Your task to perform on an android device: Open settings Image 0: 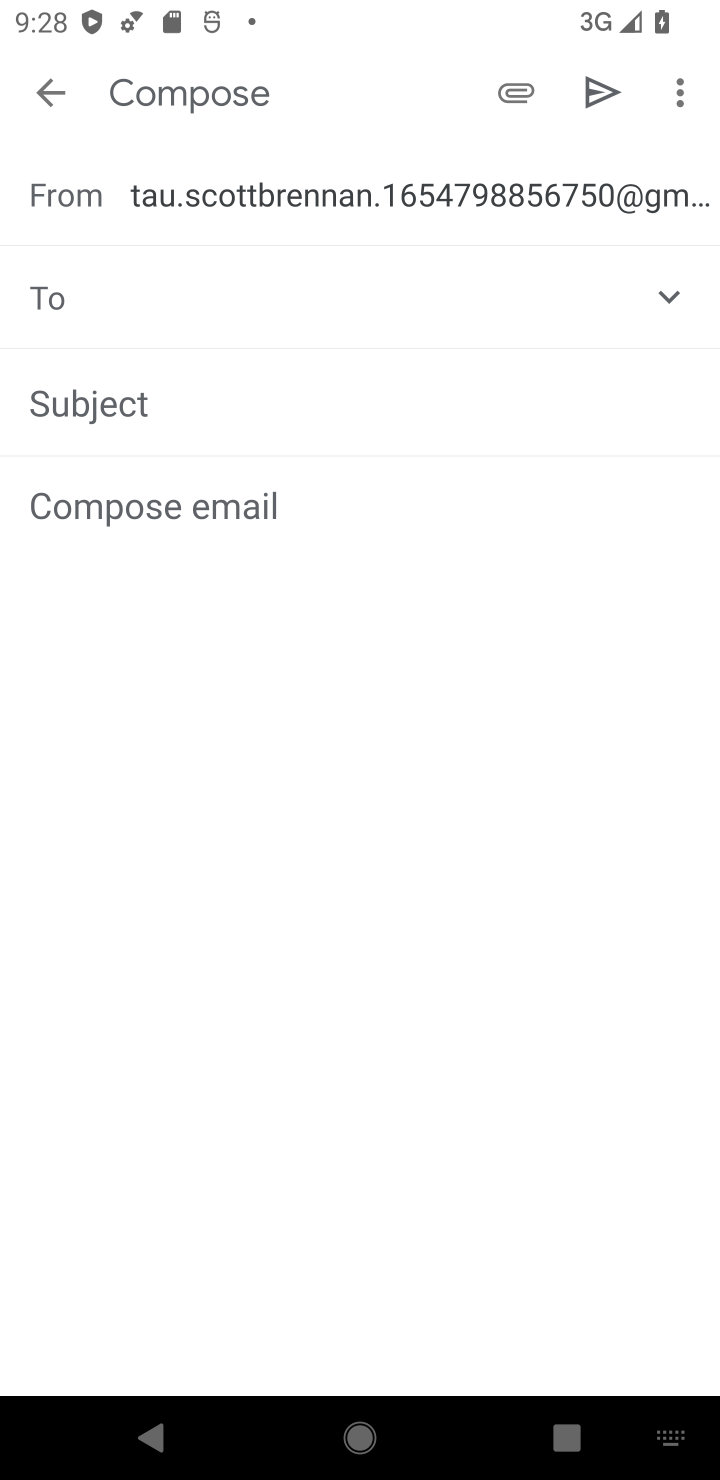
Step 0: press home button
Your task to perform on an android device: Open settings Image 1: 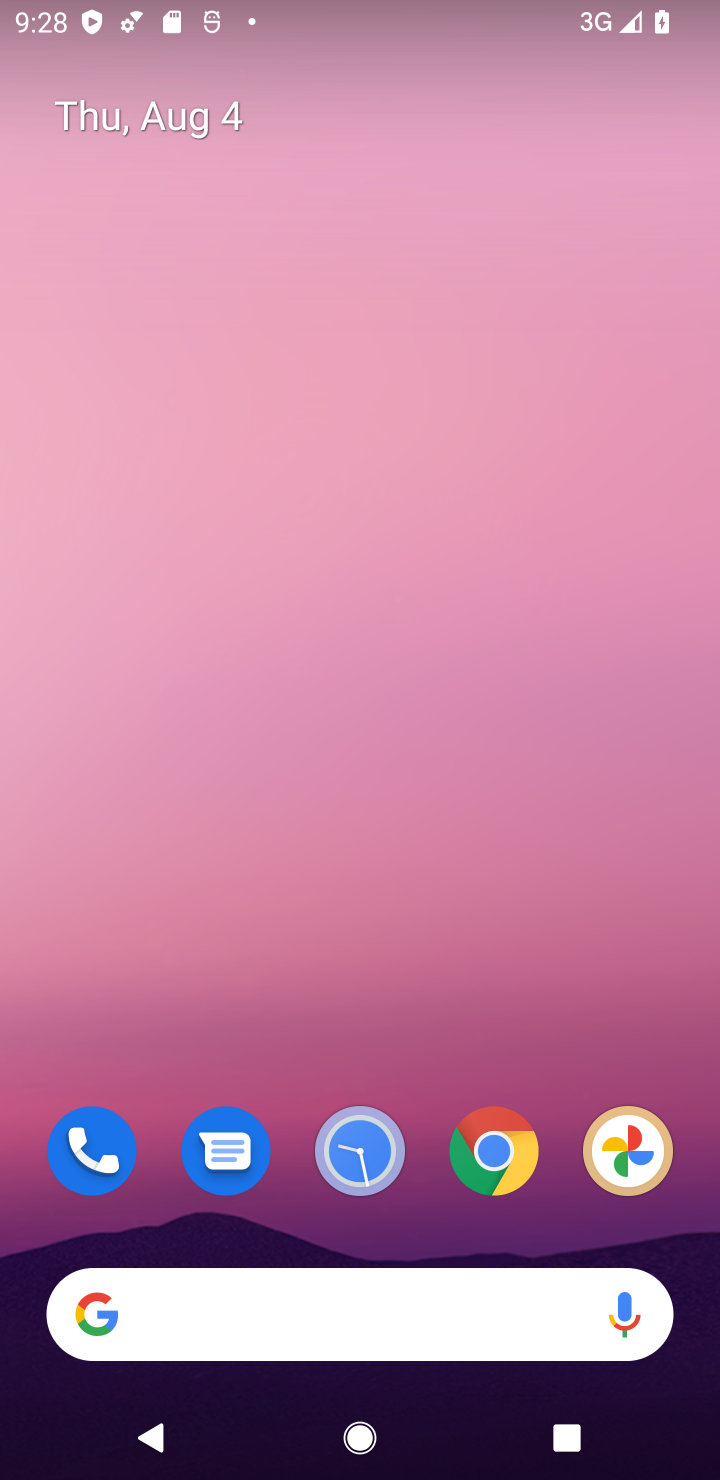
Step 1: drag from (557, 1062) to (484, 543)
Your task to perform on an android device: Open settings Image 2: 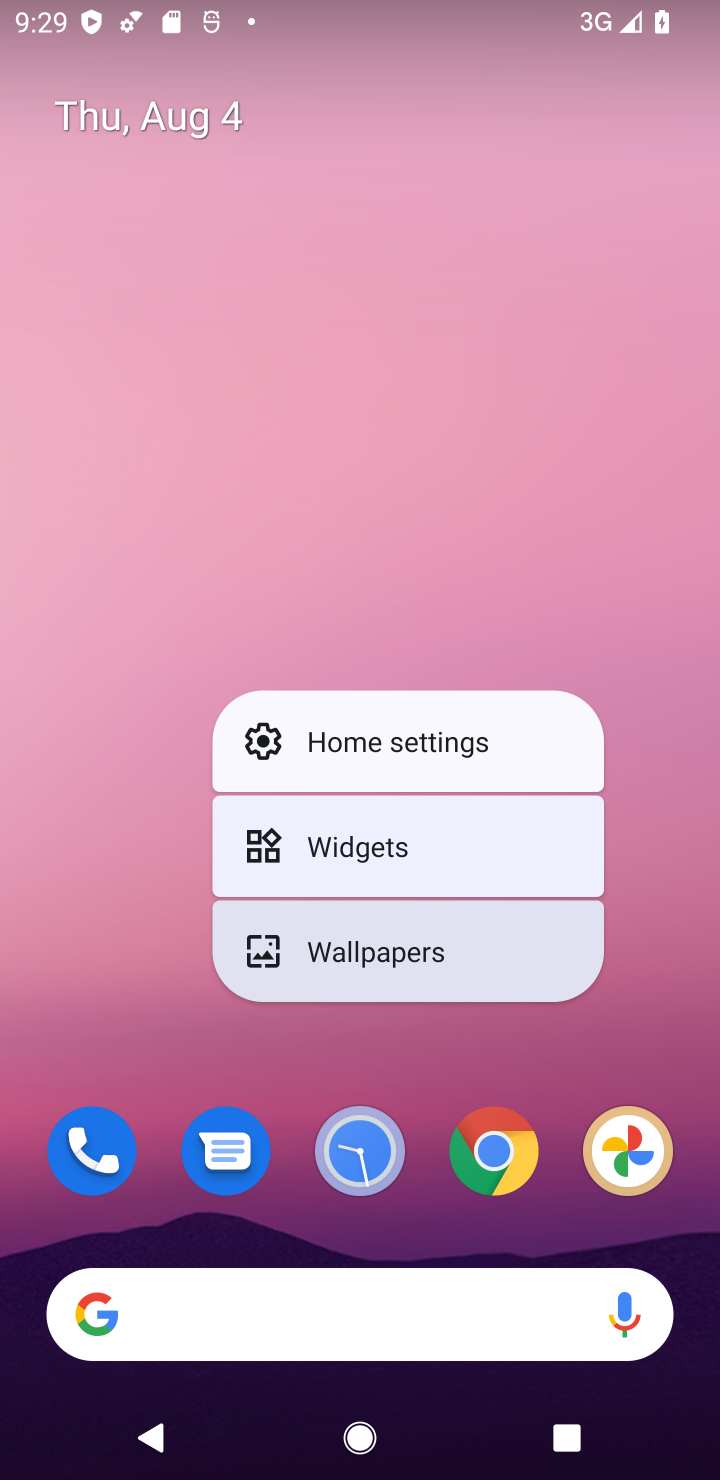
Step 2: drag from (191, 1065) to (265, 178)
Your task to perform on an android device: Open settings Image 3: 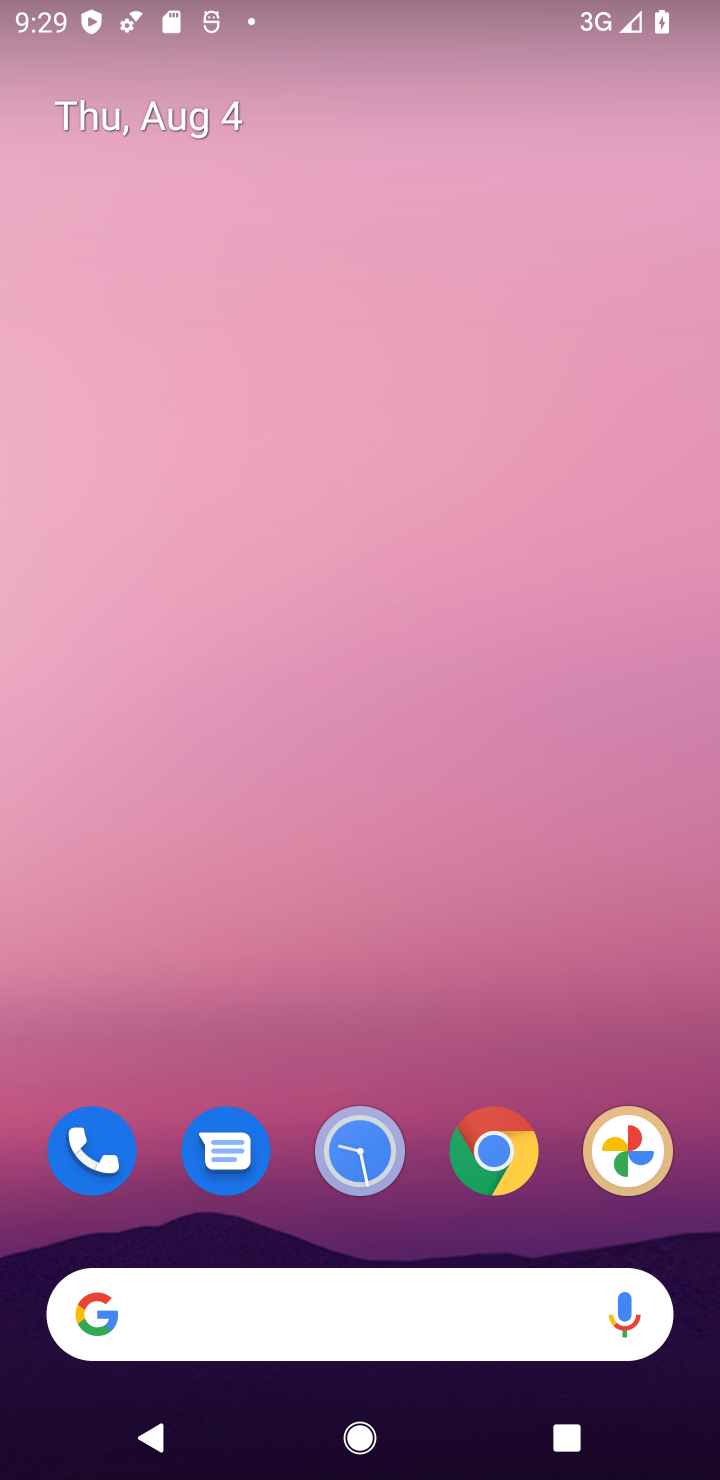
Step 3: drag from (299, 1101) to (364, 130)
Your task to perform on an android device: Open settings Image 4: 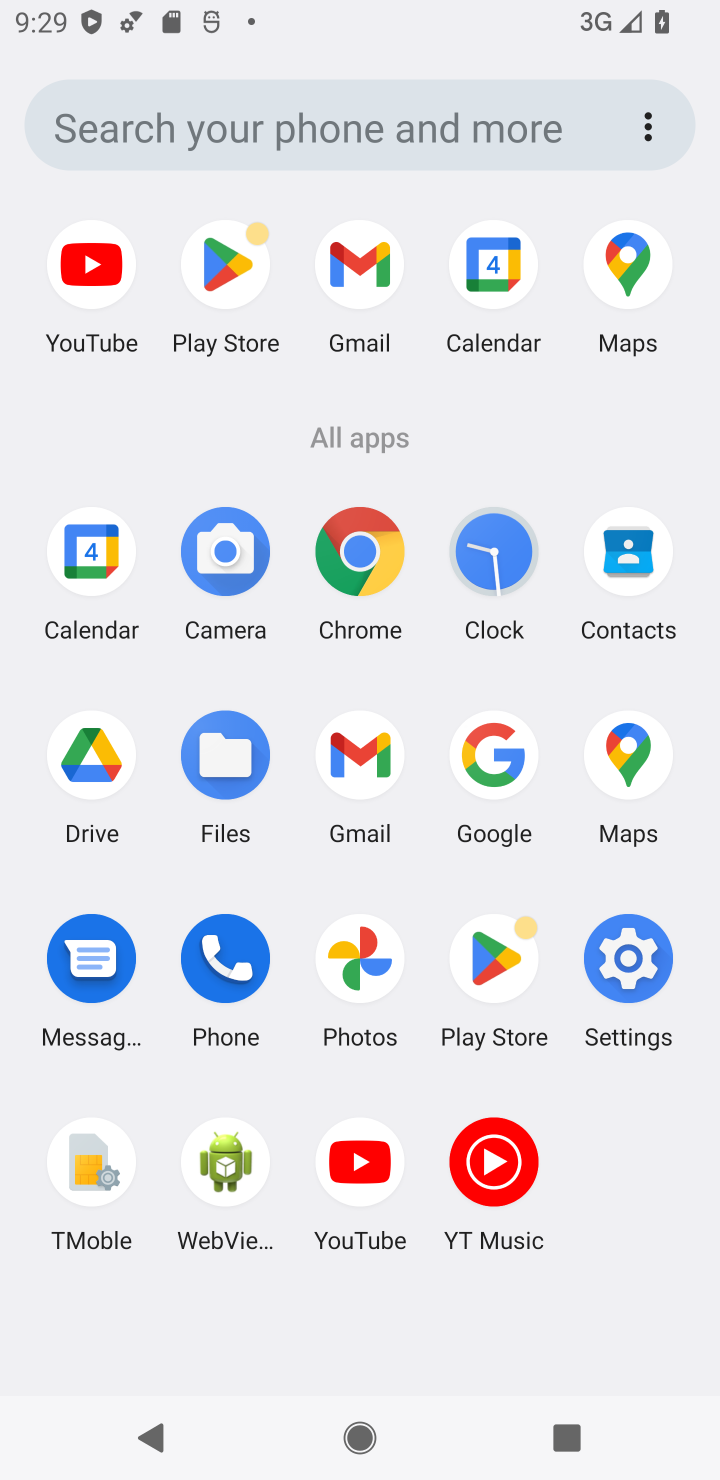
Step 4: click (625, 958)
Your task to perform on an android device: Open settings Image 5: 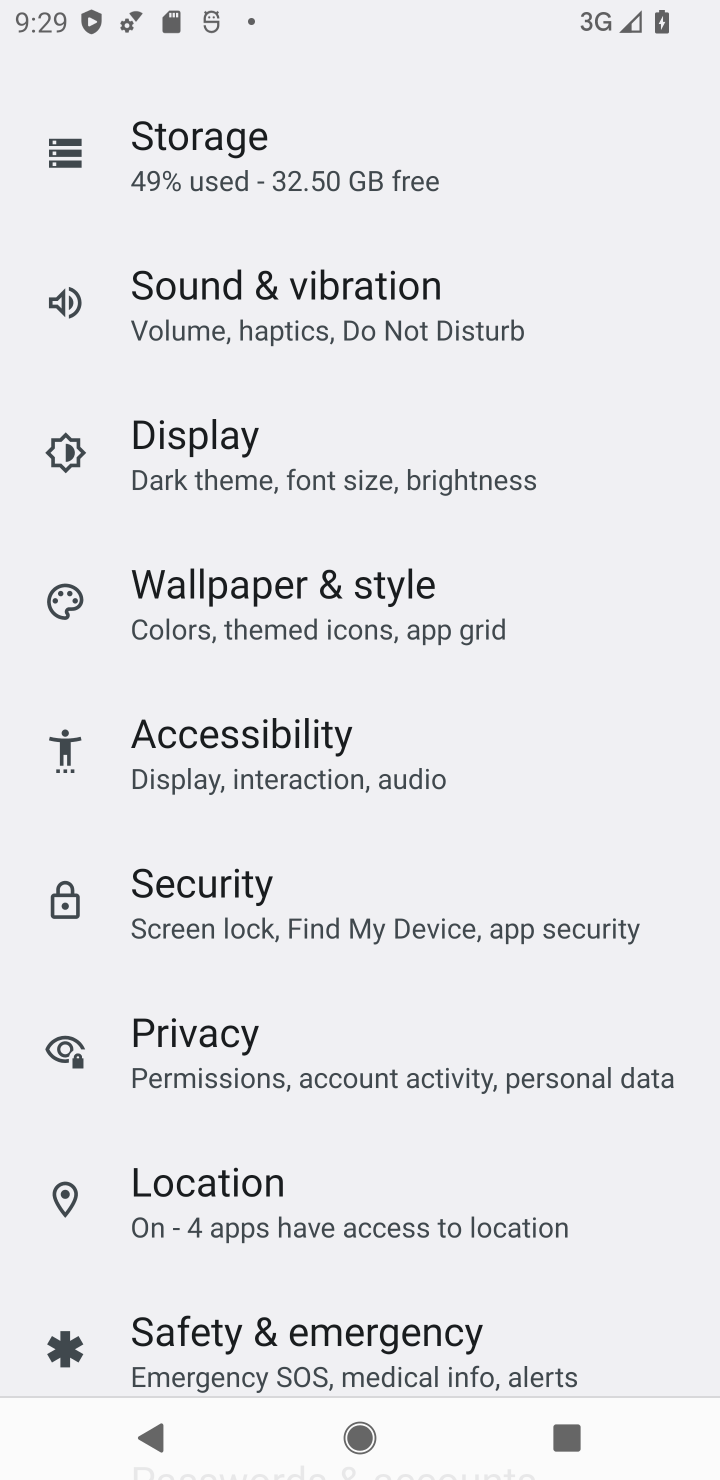
Step 5: task complete